Your task to perform on an android device: empty trash in google photos Image 0: 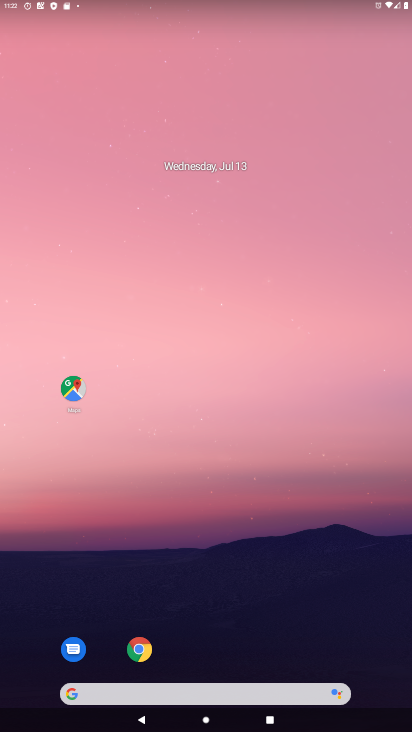
Step 0: drag from (172, 693) to (203, 167)
Your task to perform on an android device: empty trash in google photos Image 1: 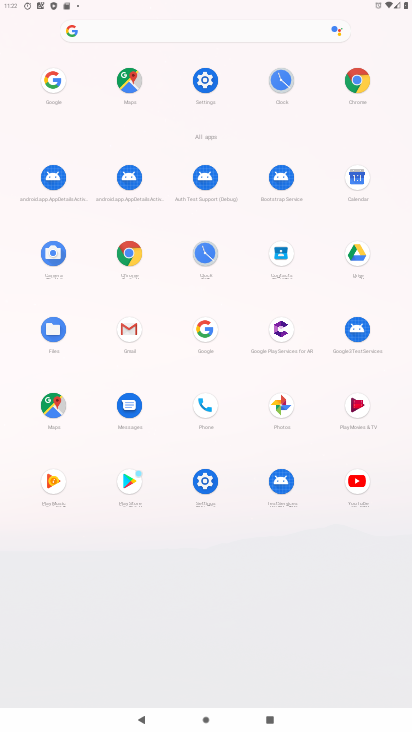
Step 1: click (284, 406)
Your task to perform on an android device: empty trash in google photos Image 2: 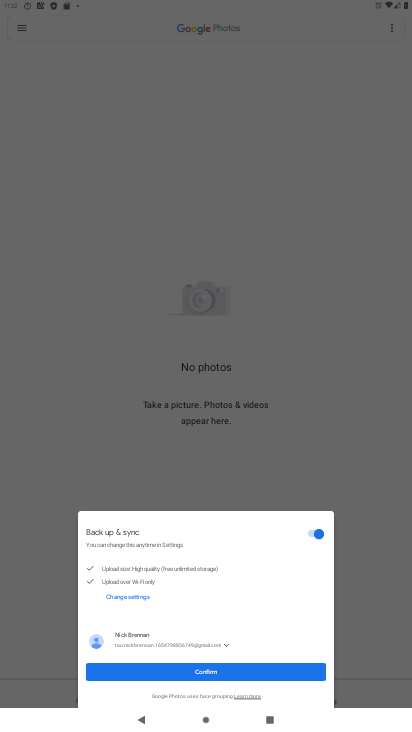
Step 2: click (201, 672)
Your task to perform on an android device: empty trash in google photos Image 3: 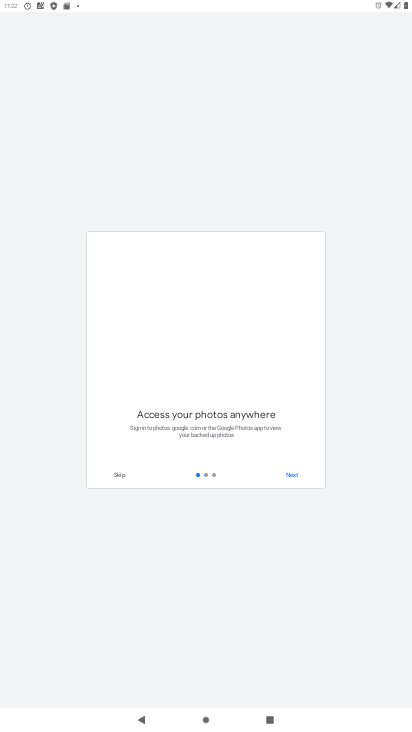
Step 3: click (290, 475)
Your task to perform on an android device: empty trash in google photos Image 4: 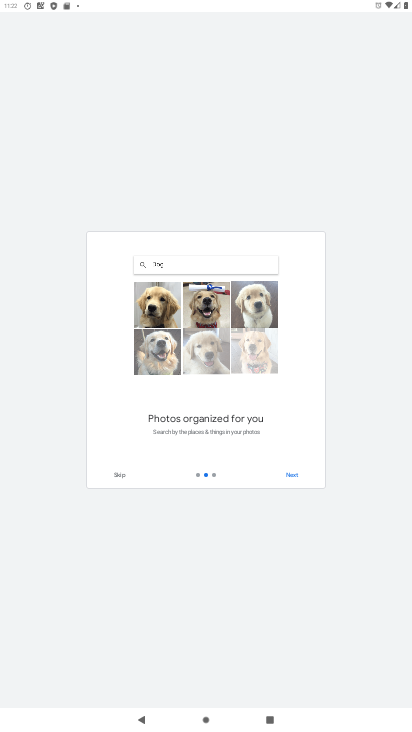
Step 4: click (290, 475)
Your task to perform on an android device: empty trash in google photos Image 5: 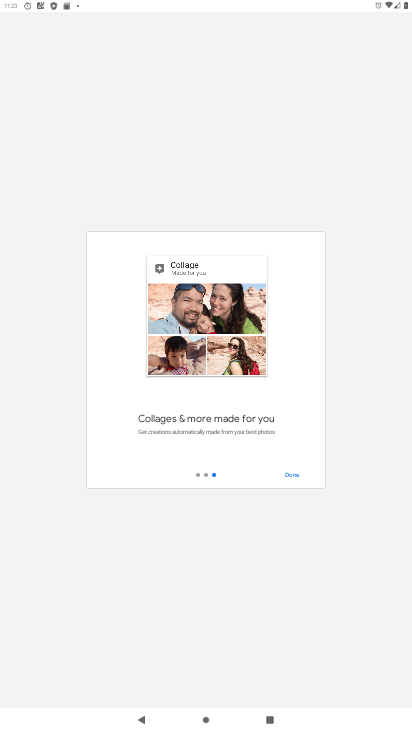
Step 5: click (290, 475)
Your task to perform on an android device: empty trash in google photos Image 6: 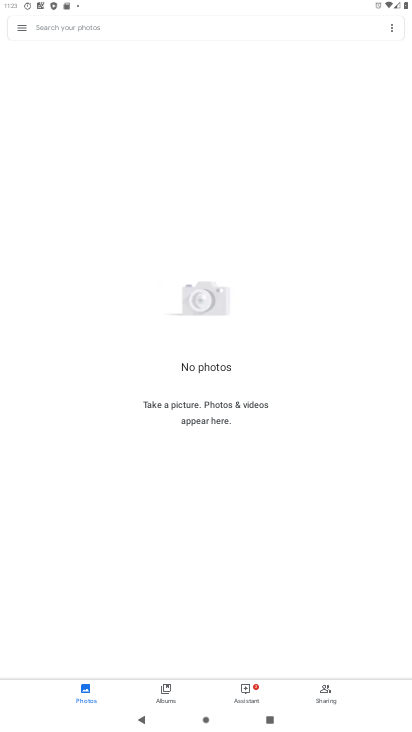
Step 6: click (22, 25)
Your task to perform on an android device: empty trash in google photos Image 7: 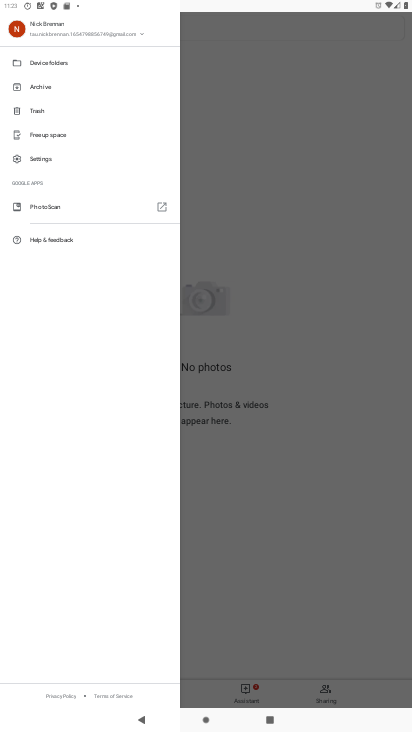
Step 7: click (34, 111)
Your task to perform on an android device: empty trash in google photos Image 8: 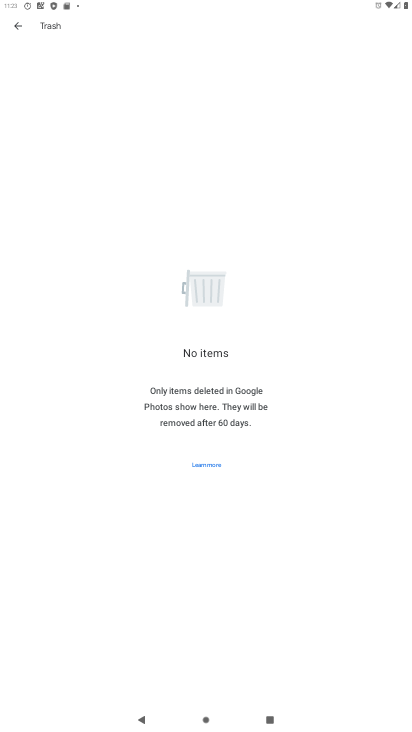
Step 8: task complete